Your task to perform on an android device: open app "Yahoo Mail" Image 0: 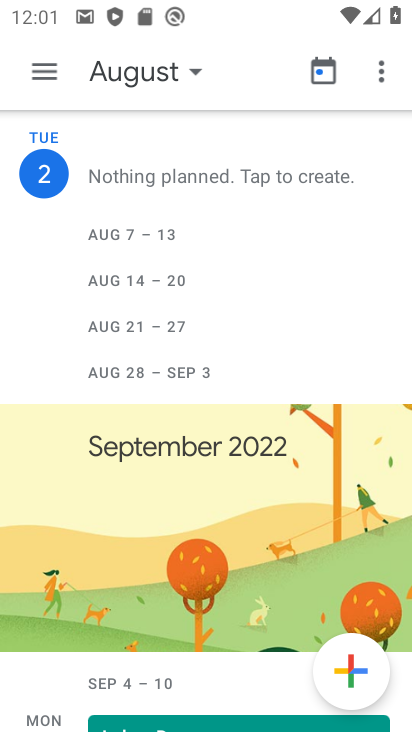
Step 0: press home button
Your task to perform on an android device: open app "Yahoo Mail" Image 1: 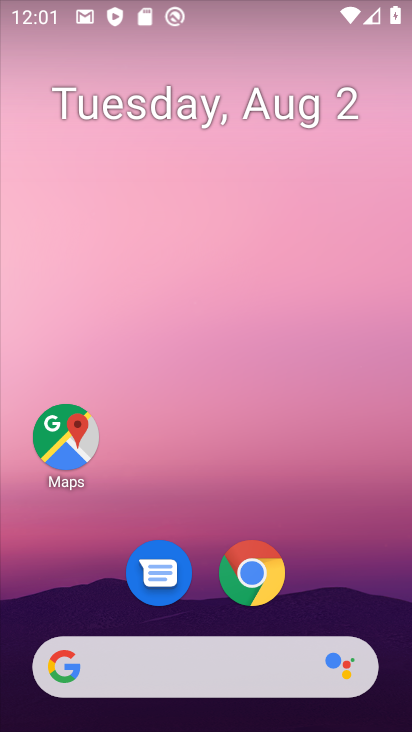
Step 1: drag from (200, 659) to (286, 14)
Your task to perform on an android device: open app "Yahoo Mail" Image 2: 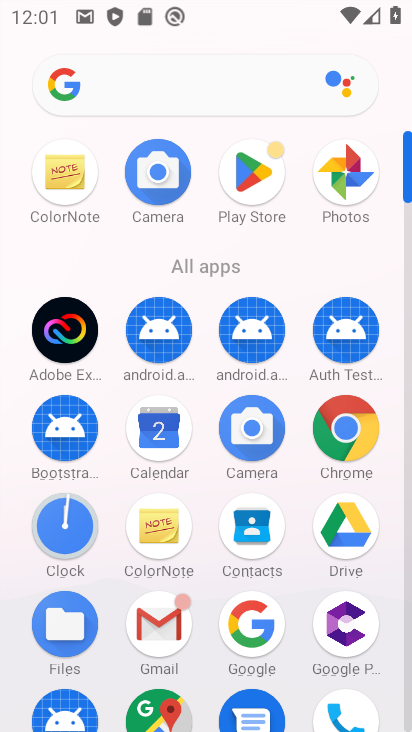
Step 2: click (271, 176)
Your task to perform on an android device: open app "Yahoo Mail" Image 3: 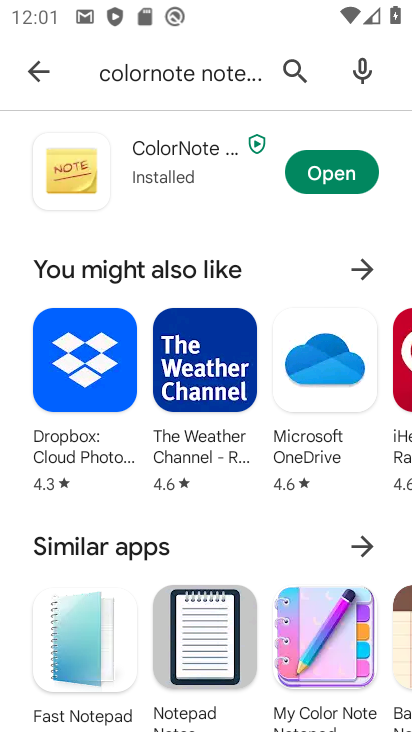
Step 3: click (292, 68)
Your task to perform on an android device: open app "Yahoo Mail" Image 4: 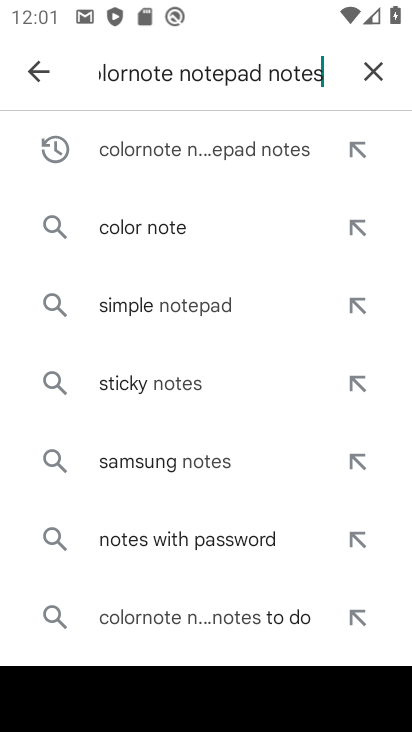
Step 4: click (383, 77)
Your task to perform on an android device: open app "Yahoo Mail" Image 5: 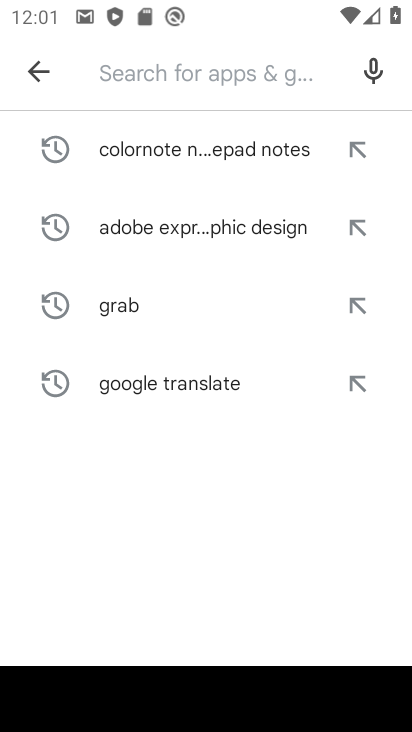
Step 5: type "yahoo mail"
Your task to perform on an android device: open app "Yahoo Mail" Image 6: 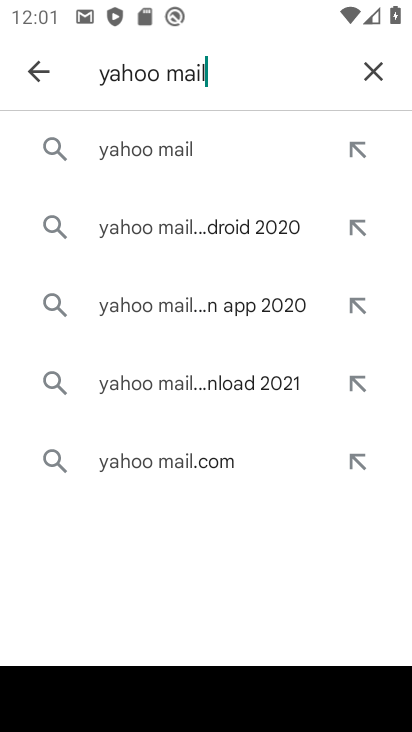
Step 6: click (189, 163)
Your task to perform on an android device: open app "Yahoo Mail" Image 7: 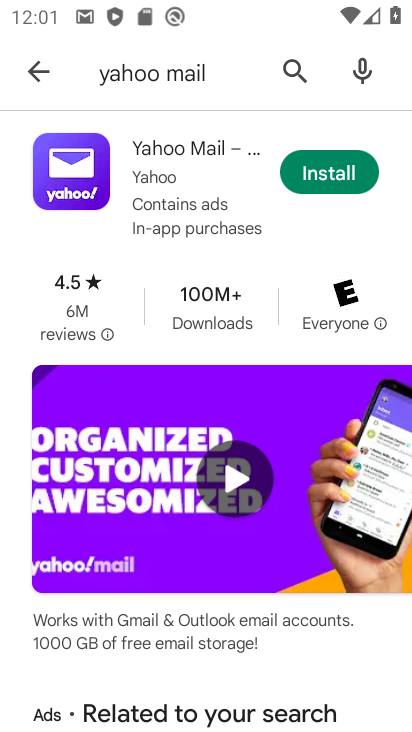
Step 7: task complete